Your task to perform on an android device: stop showing notifications on the lock screen Image 0: 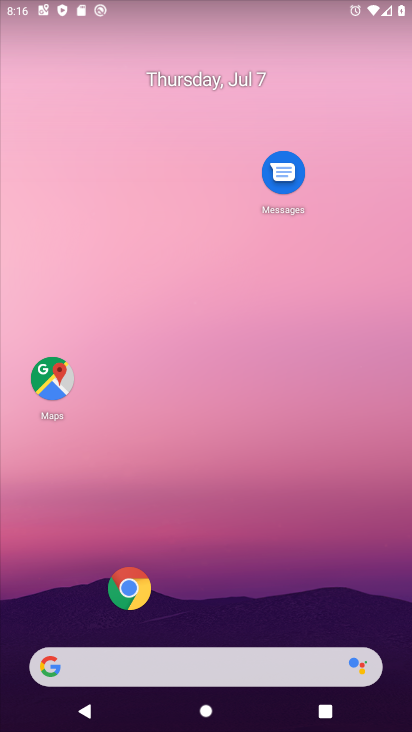
Step 0: drag from (23, 678) to (245, 57)
Your task to perform on an android device: stop showing notifications on the lock screen Image 1: 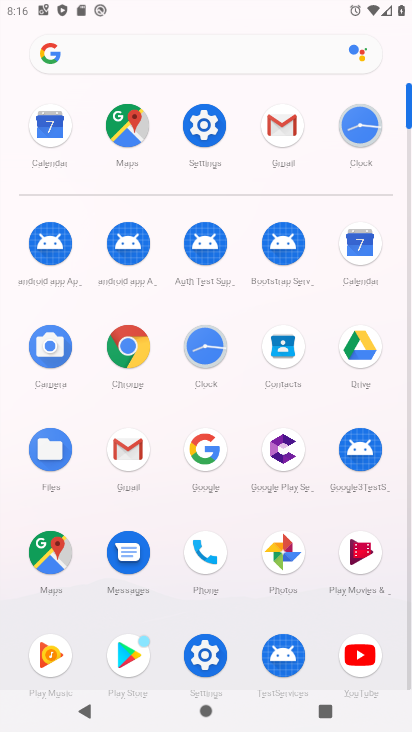
Step 1: click (204, 660)
Your task to perform on an android device: stop showing notifications on the lock screen Image 2: 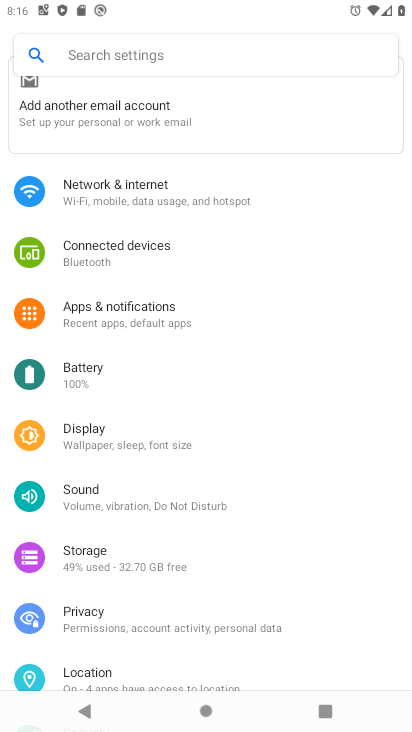
Step 2: drag from (318, 562) to (368, 146)
Your task to perform on an android device: stop showing notifications on the lock screen Image 3: 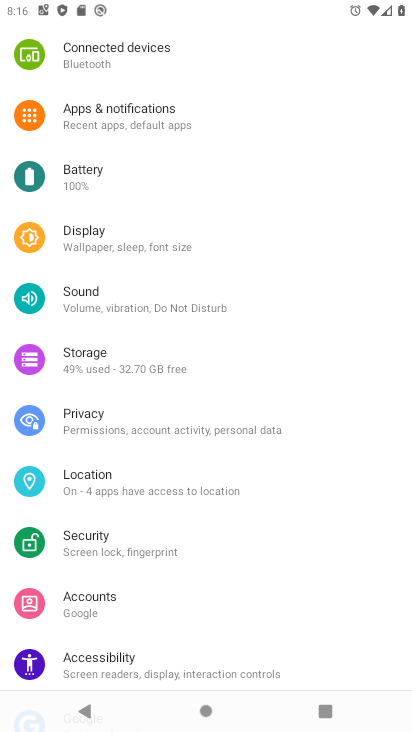
Step 3: drag from (310, 636) to (311, 413)
Your task to perform on an android device: stop showing notifications on the lock screen Image 4: 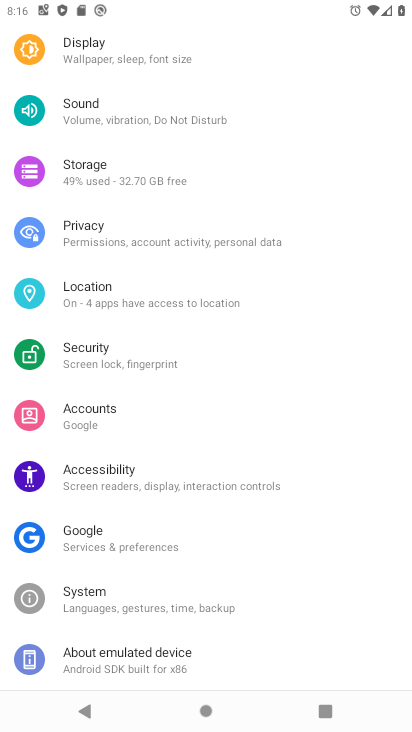
Step 4: drag from (283, 595) to (321, 357)
Your task to perform on an android device: stop showing notifications on the lock screen Image 5: 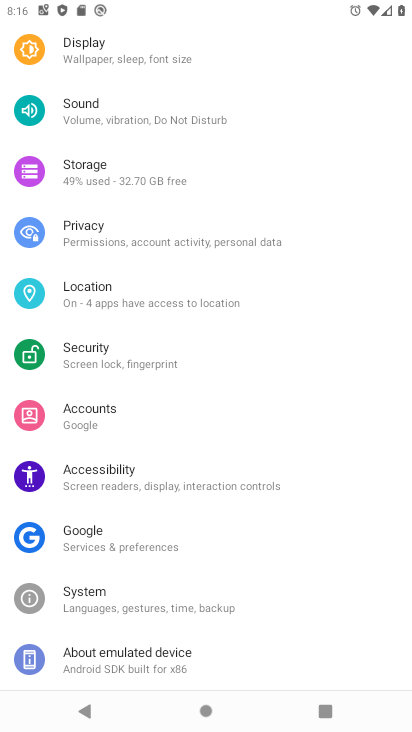
Step 5: drag from (277, 142) to (281, 599)
Your task to perform on an android device: stop showing notifications on the lock screen Image 6: 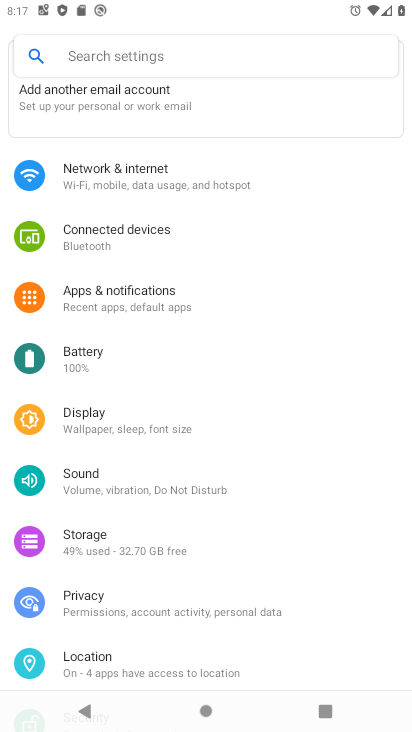
Step 6: click (131, 301)
Your task to perform on an android device: stop showing notifications on the lock screen Image 7: 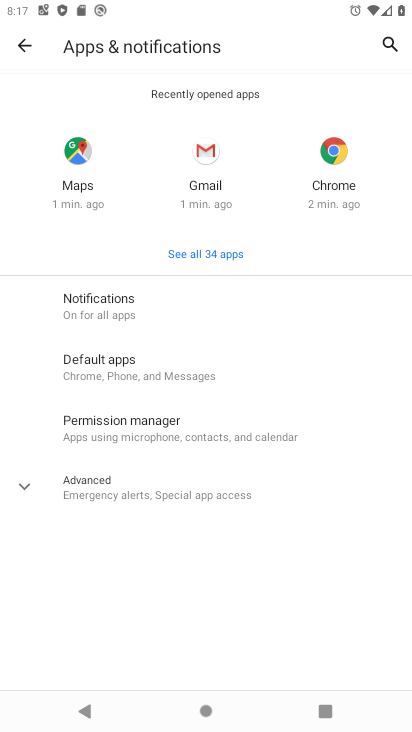
Step 7: click (129, 302)
Your task to perform on an android device: stop showing notifications on the lock screen Image 8: 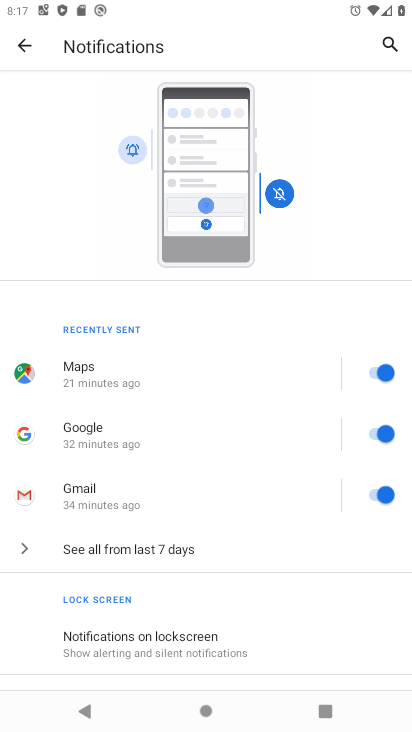
Step 8: click (152, 635)
Your task to perform on an android device: stop showing notifications on the lock screen Image 9: 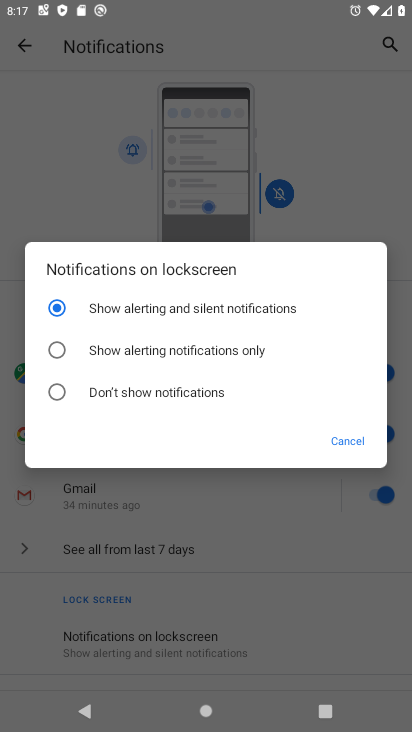
Step 9: click (60, 394)
Your task to perform on an android device: stop showing notifications on the lock screen Image 10: 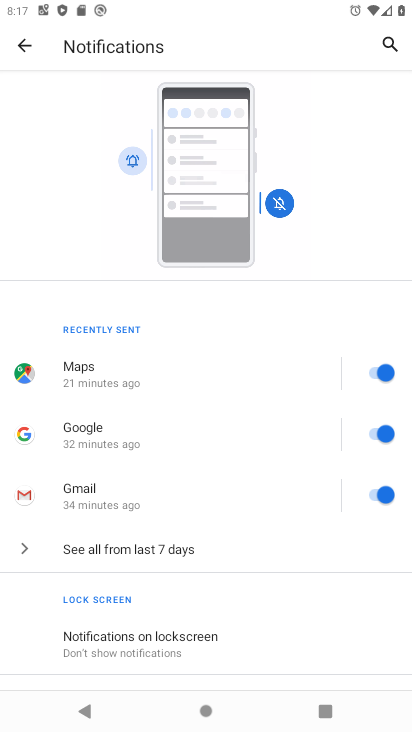
Step 10: task complete